Your task to perform on an android device: Is it going to rain this weekend? Image 0: 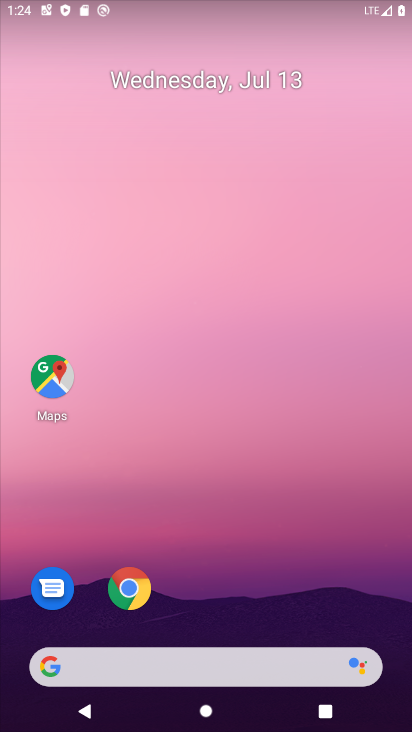
Step 0: drag from (398, 690) to (373, 267)
Your task to perform on an android device: Is it going to rain this weekend? Image 1: 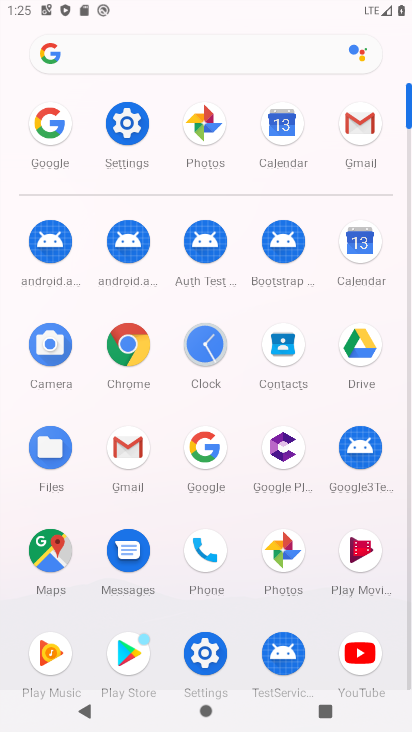
Step 1: click (199, 447)
Your task to perform on an android device: Is it going to rain this weekend? Image 2: 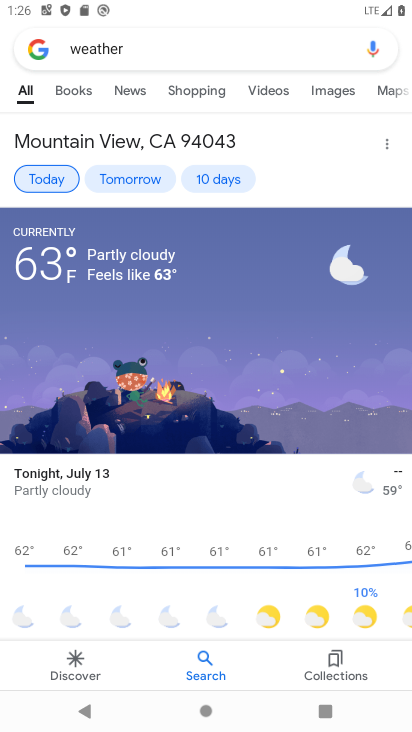
Step 2: task complete